Your task to perform on an android device: Open Chrome and go to settings Image 0: 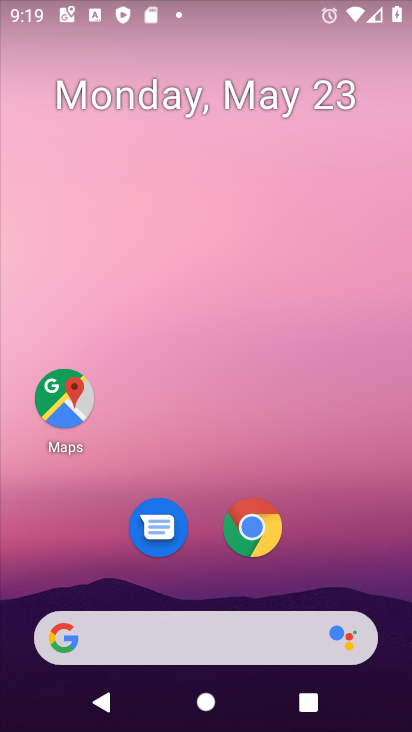
Step 0: drag from (341, 566) to (272, 25)
Your task to perform on an android device: Open Chrome and go to settings Image 1: 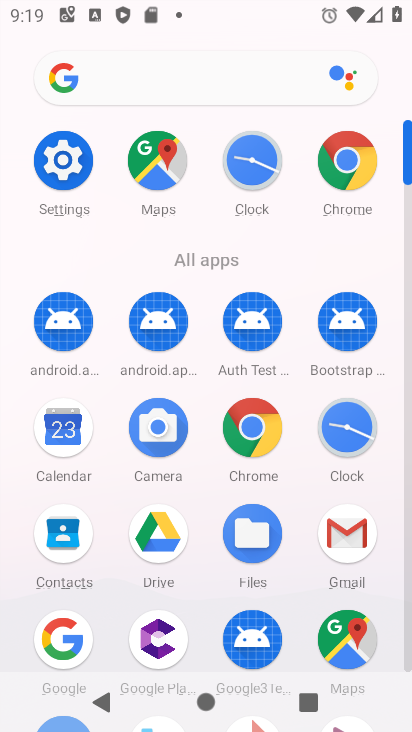
Step 1: drag from (8, 564) to (26, 185)
Your task to perform on an android device: Open Chrome and go to settings Image 2: 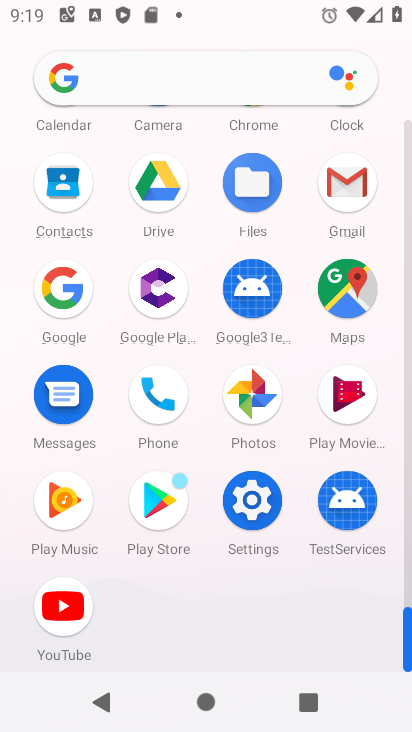
Step 2: click (250, 499)
Your task to perform on an android device: Open Chrome and go to settings Image 3: 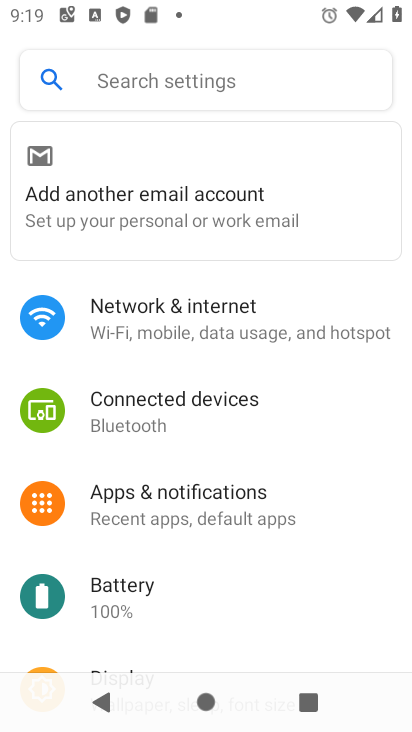
Step 3: press back button
Your task to perform on an android device: Open Chrome and go to settings Image 4: 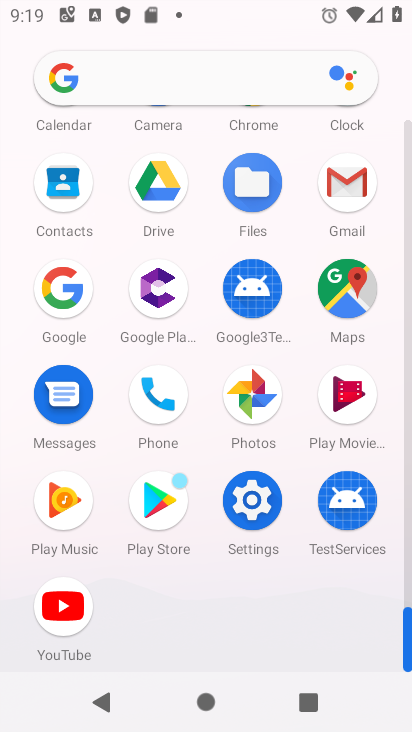
Step 4: drag from (12, 236) to (12, 557)
Your task to perform on an android device: Open Chrome and go to settings Image 5: 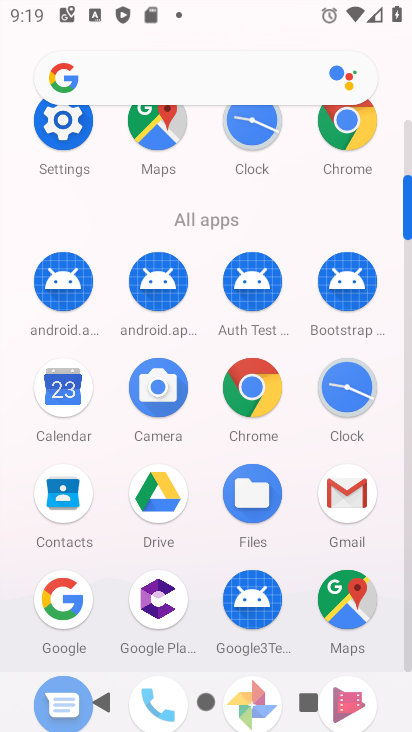
Step 5: click (252, 384)
Your task to perform on an android device: Open Chrome and go to settings Image 6: 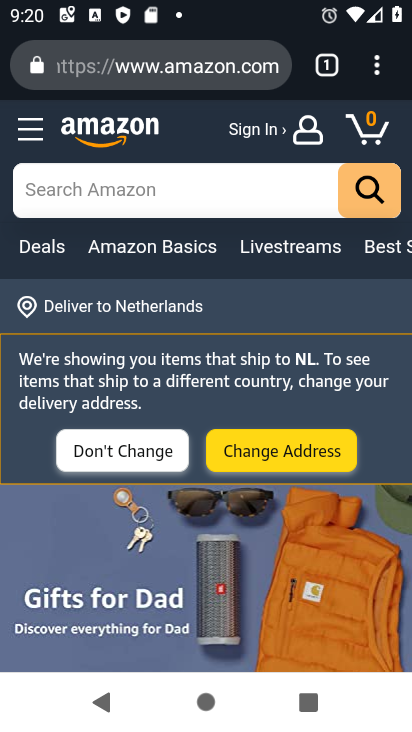
Step 6: task complete